Your task to perform on an android device: change notifications settings Image 0: 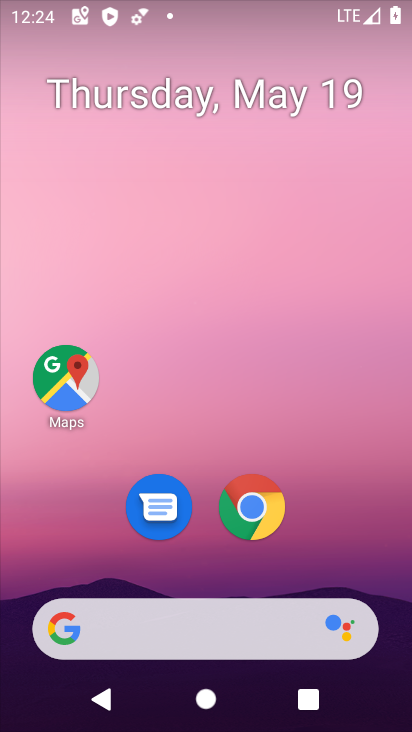
Step 0: drag from (205, 553) to (251, 143)
Your task to perform on an android device: change notifications settings Image 1: 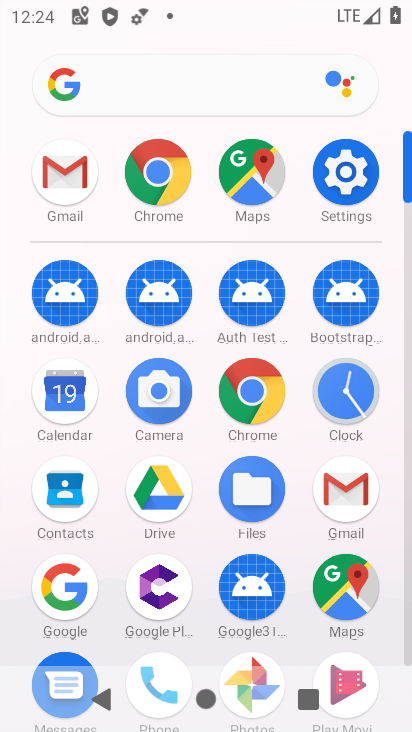
Step 1: click (373, 183)
Your task to perform on an android device: change notifications settings Image 2: 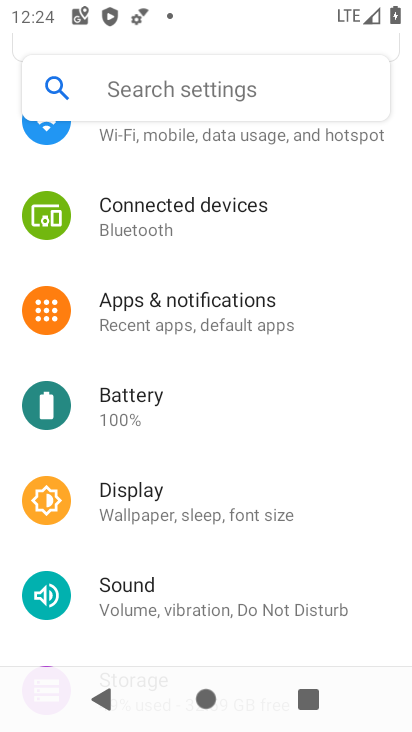
Step 2: click (239, 315)
Your task to perform on an android device: change notifications settings Image 3: 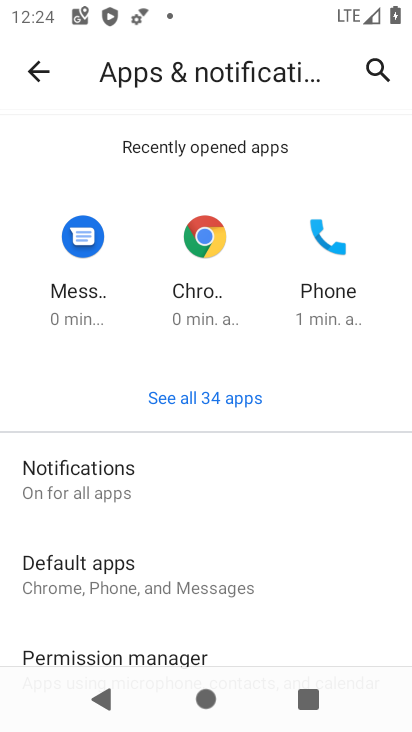
Step 3: click (148, 483)
Your task to perform on an android device: change notifications settings Image 4: 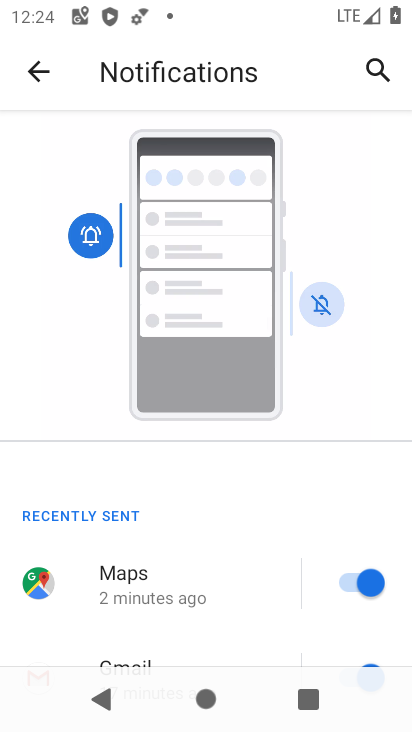
Step 4: task complete